Your task to perform on an android device: turn off sleep mode Image 0: 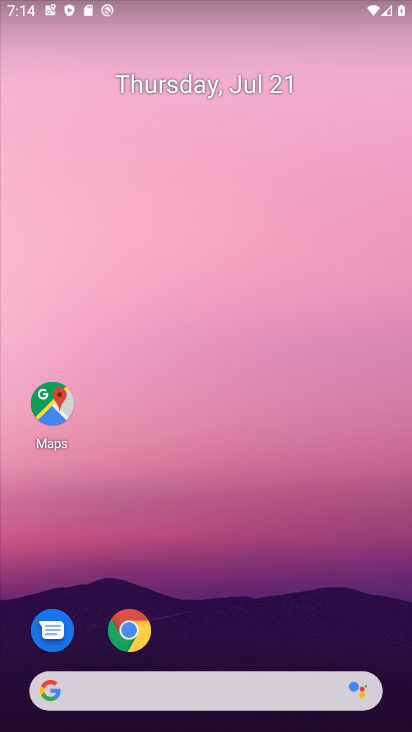
Step 0: drag from (133, 720) to (140, 179)
Your task to perform on an android device: turn off sleep mode Image 1: 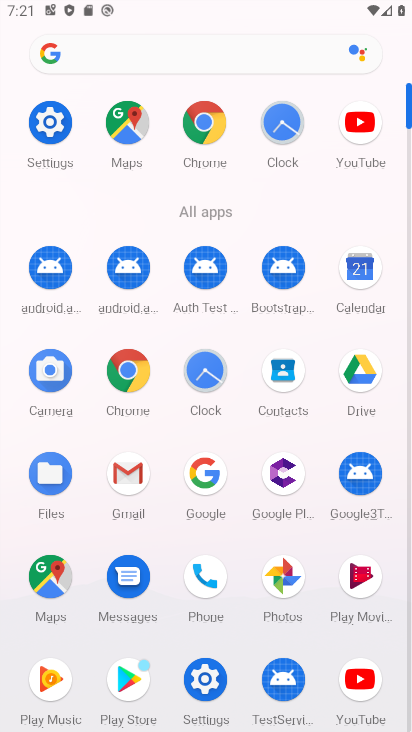
Step 1: click (195, 675)
Your task to perform on an android device: turn off sleep mode Image 2: 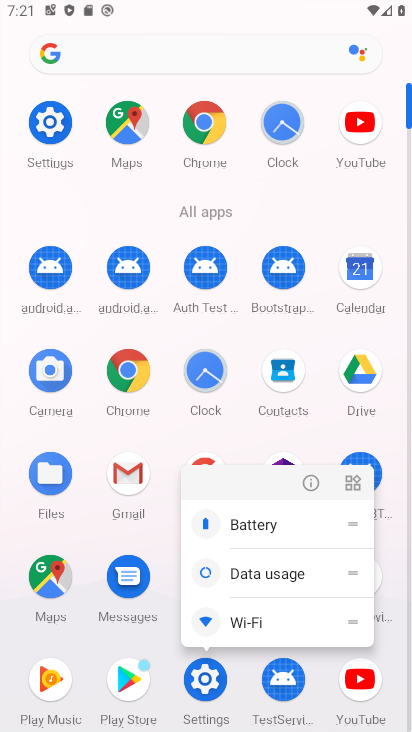
Step 2: click (198, 675)
Your task to perform on an android device: turn off sleep mode Image 3: 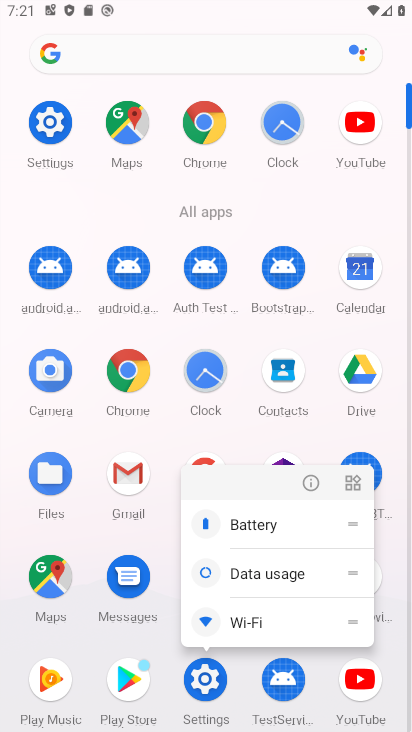
Step 3: click (198, 675)
Your task to perform on an android device: turn off sleep mode Image 4: 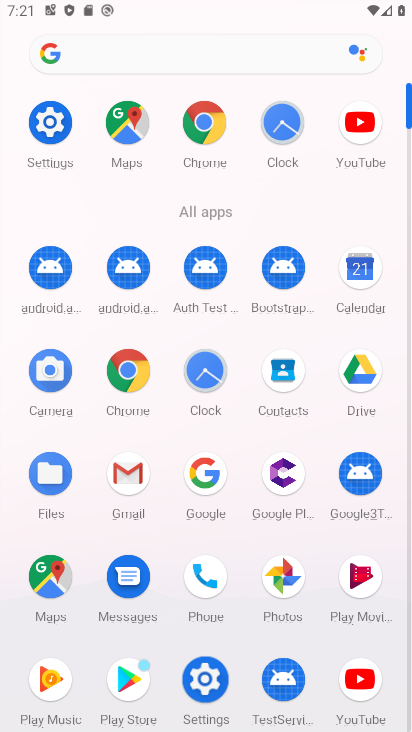
Step 4: click (198, 675)
Your task to perform on an android device: turn off sleep mode Image 5: 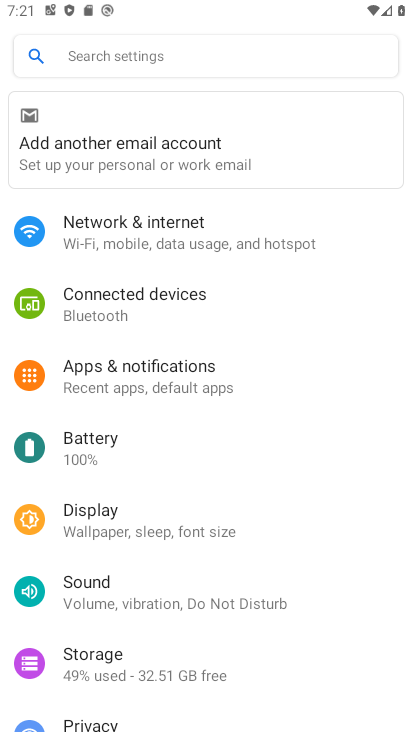
Step 5: click (162, 527)
Your task to perform on an android device: turn off sleep mode Image 6: 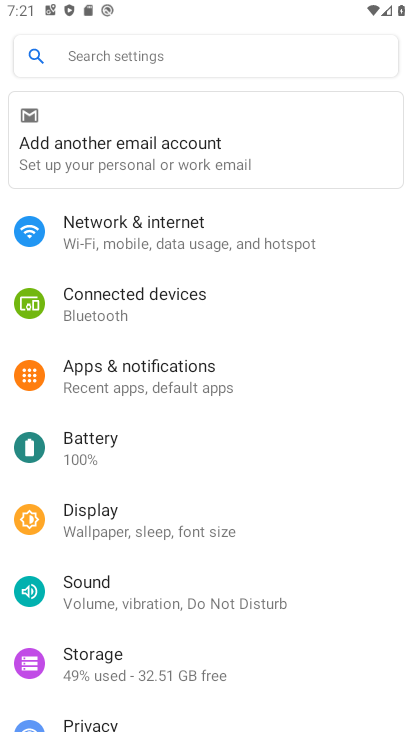
Step 6: click (163, 519)
Your task to perform on an android device: turn off sleep mode Image 7: 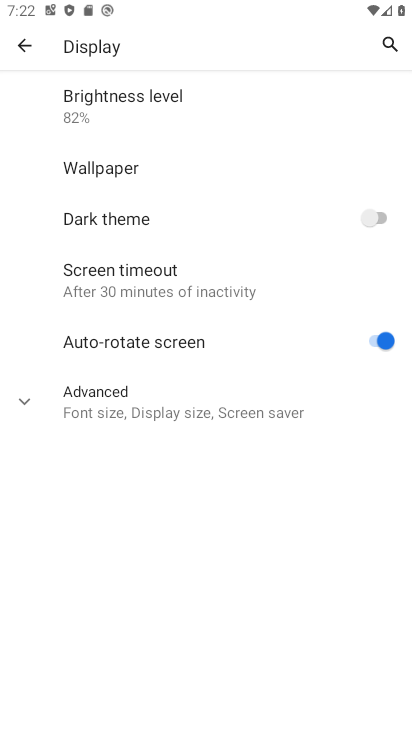
Step 7: task complete